Your task to perform on an android device: turn on bluetooth scan Image 0: 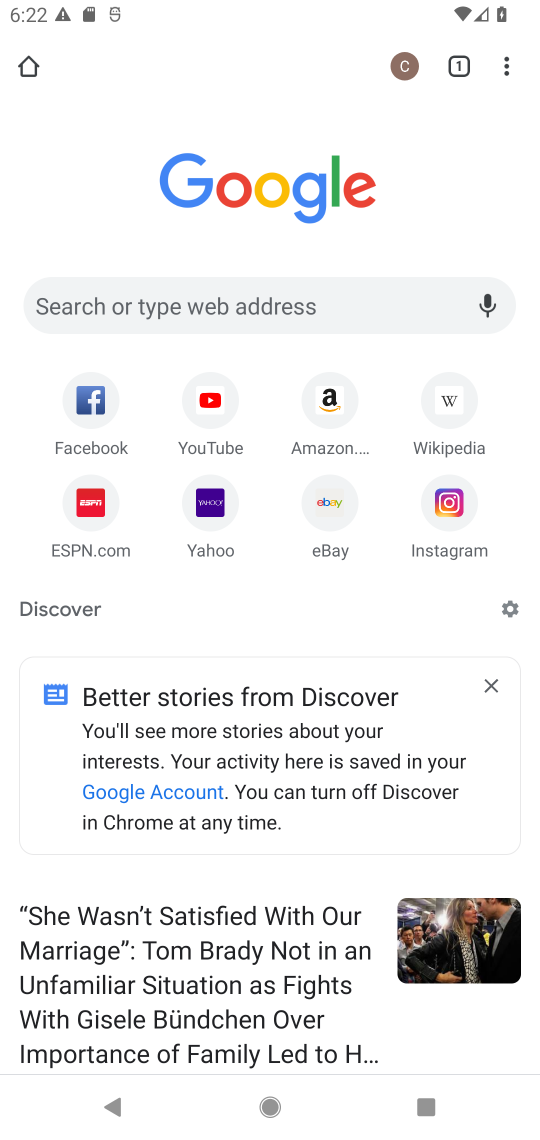
Step 0: press home button
Your task to perform on an android device: turn on bluetooth scan Image 1: 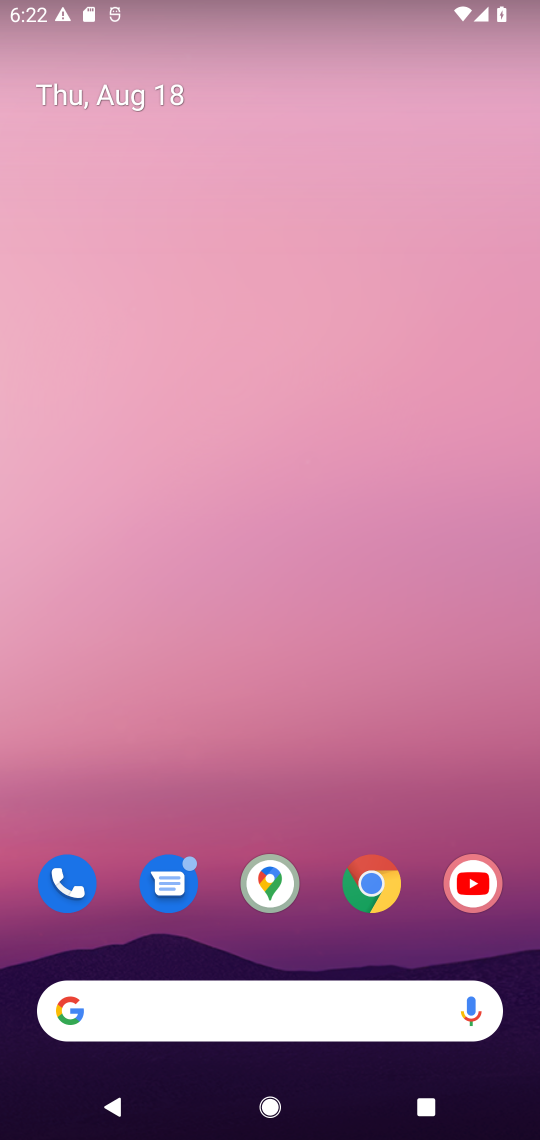
Step 1: drag from (60, 1073) to (266, 294)
Your task to perform on an android device: turn on bluetooth scan Image 2: 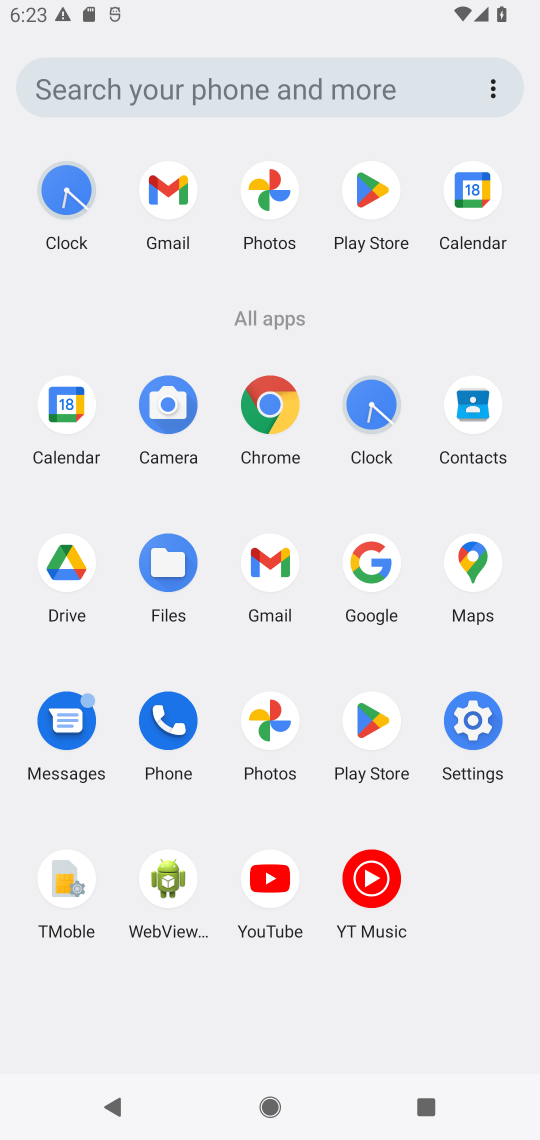
Step 2: click (471, 733)
Your task to perform on an android device: turn on bluetooth scan Image 3: 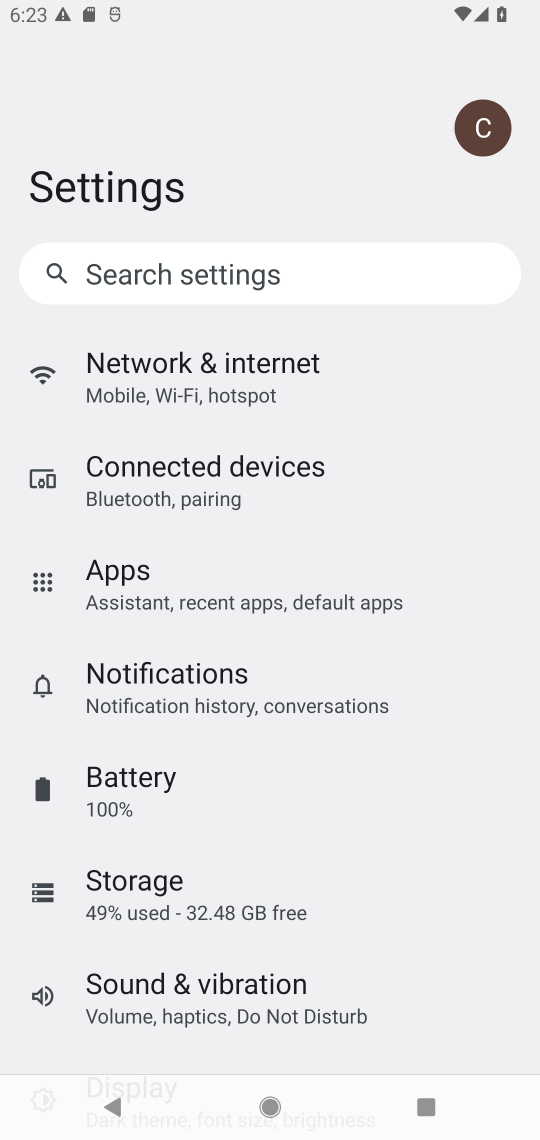
Step 3: click (200, 448)
Your task to perform on an android device: turn on bluetooth scan Image 4: 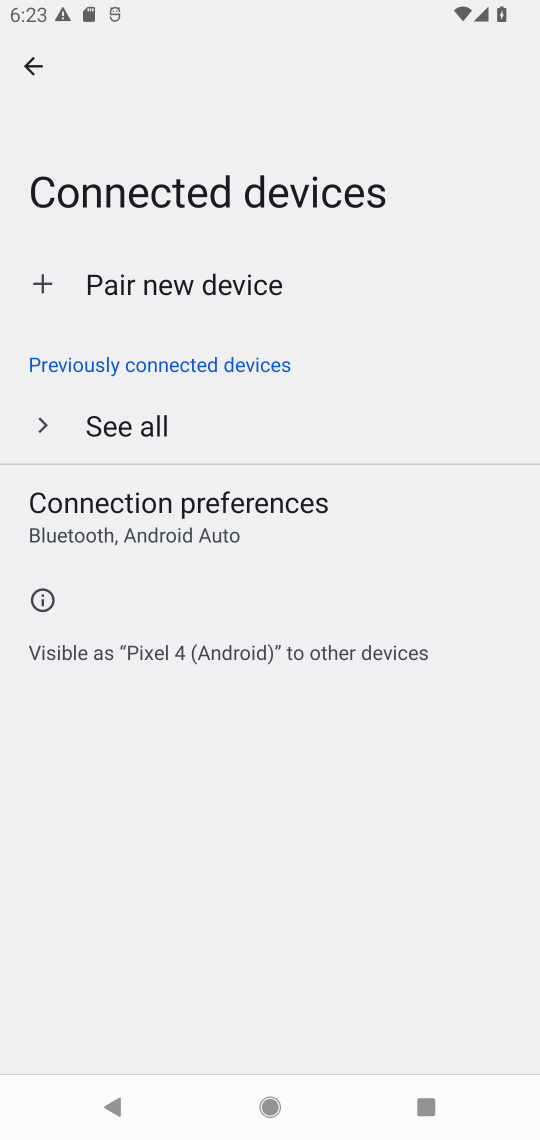
Step 4: click (186, 532)
Your task to perform on an android device: turn on bluetooth scan Image 5: 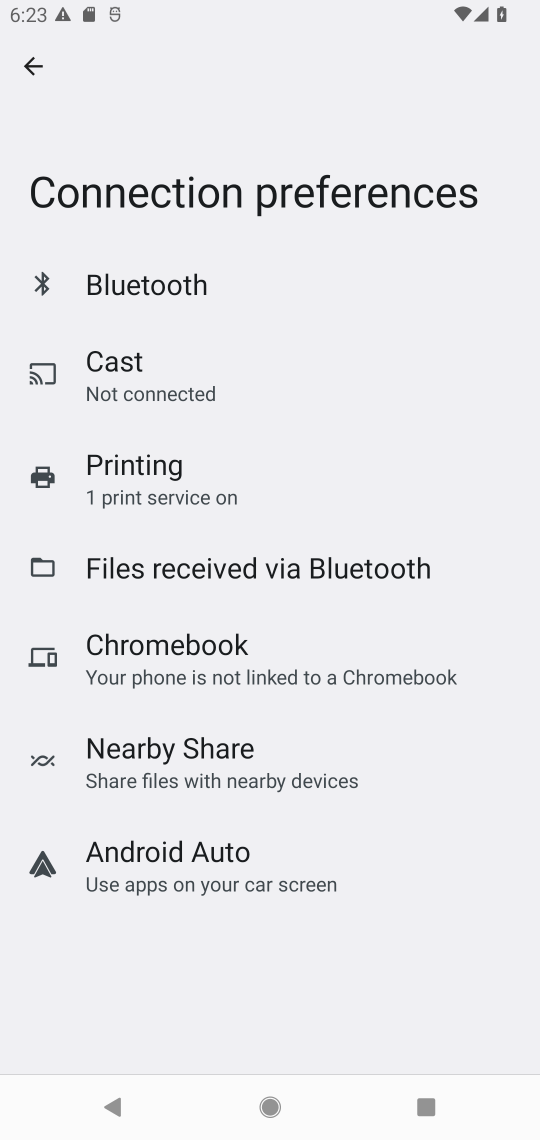
Step 5: click (139, 280)
Your task to perform on an android device: turn on bluetooth scan Image 6: 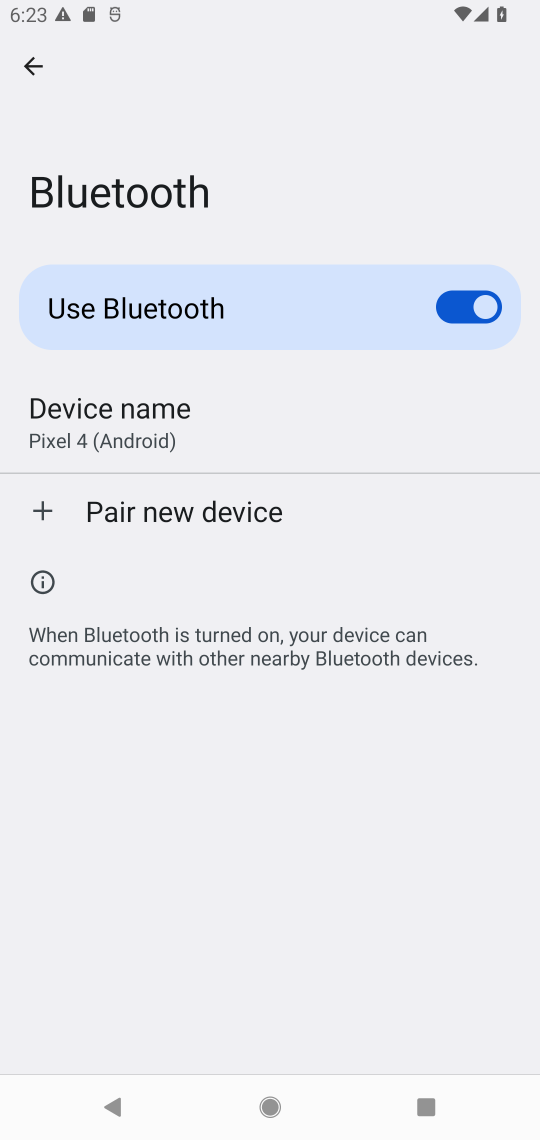
Step 6: task complete